Your task to perform on an android device: Open Yahoo.com Image 0: 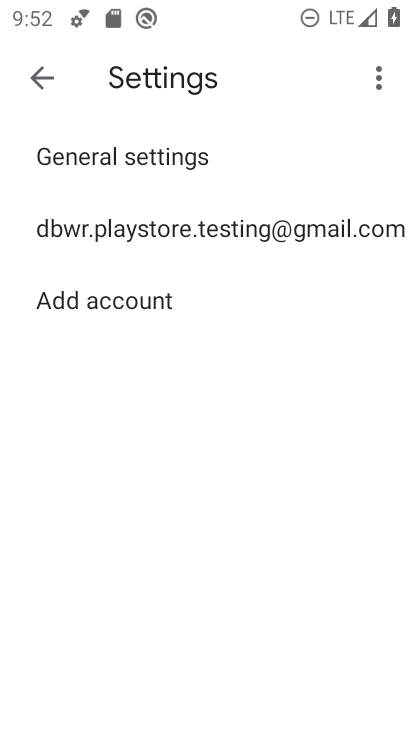
Step 0: press home button
Your task to perform on an android device: Open Yahoo.com Image 1: 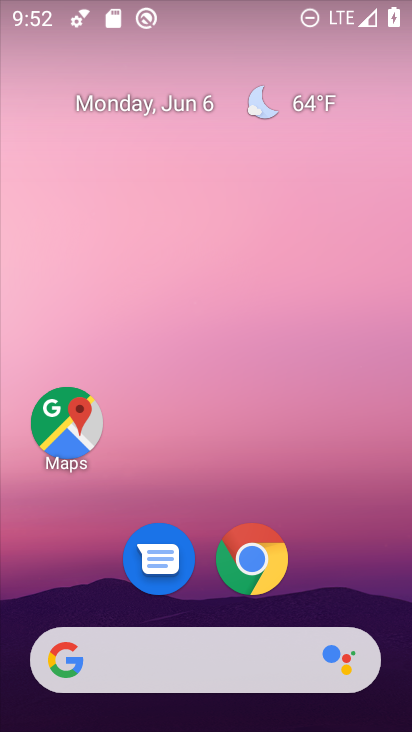
Step 1: drag from (221, 695) to (219, 133)
Your task to perform on an android device: Open Yahoo.com Image 2: 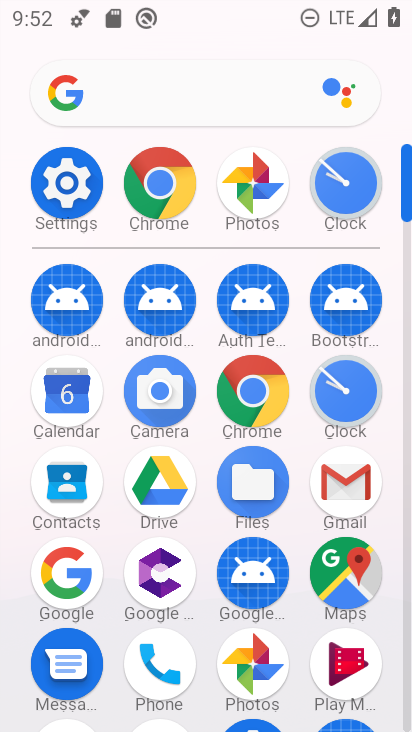
Step 2: click (254, 386)
Your task to perform on an android device: Open Yahoo.com Image 3: 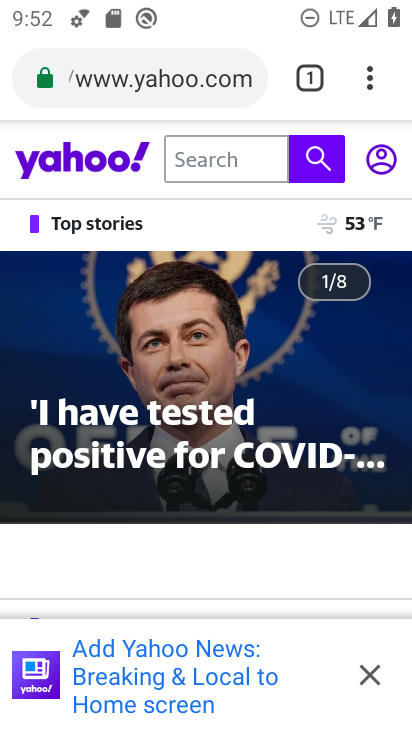
Step 3: task complete